Your task to perform on an android device: turn off javascript in the chrome app Image 0: 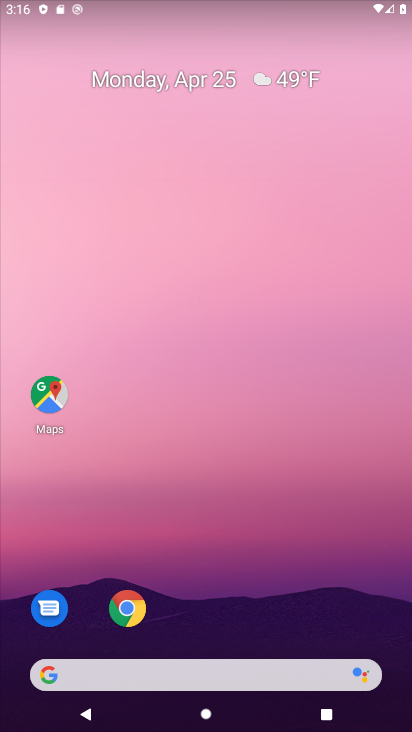
Step 0: click (129, 624)
Your task to perform on an android device: turn off javascript in the chrome app Image 1: 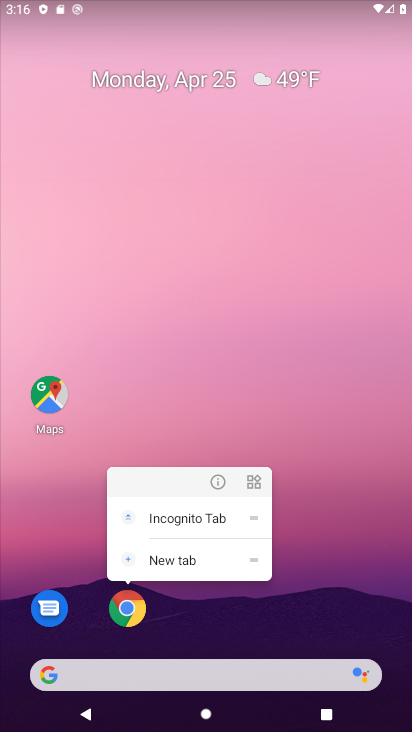
Step 1: click (129, 618)
Your task to perform on an android device: turn off javascript in the chrome app Image 2: 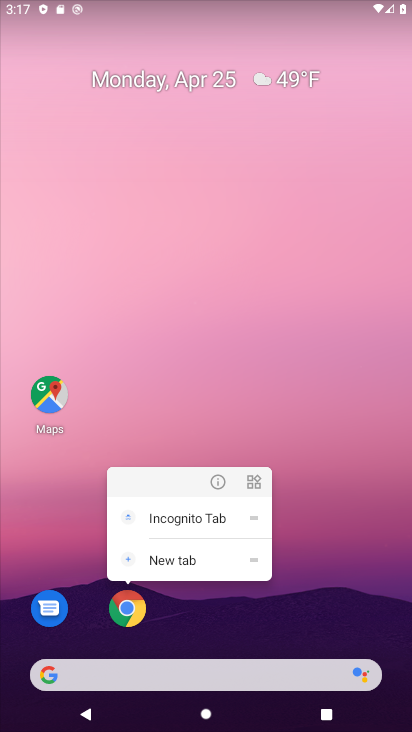
Step 2: click (129, 618)
Your task to perform on an android device: turn off javascript in the chrome app Image 3: 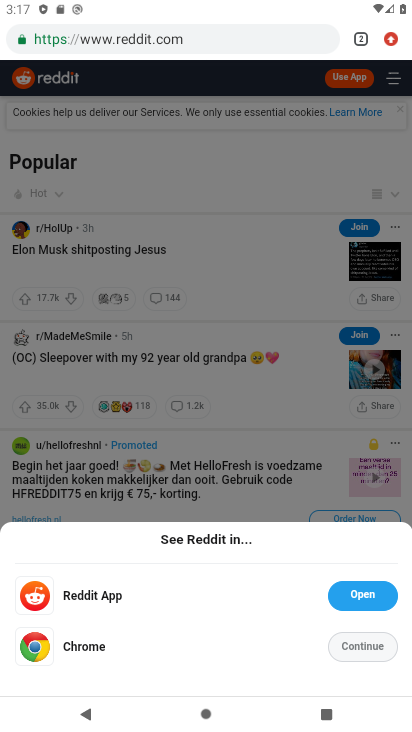
Step 3: drag from (385, 40) to (264, 510)
Your task to perform on an android device: turn off javascript in the chrome app Image 4: 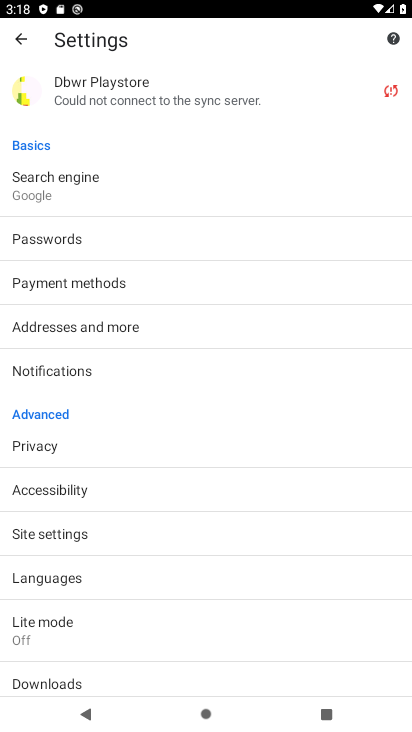
Step 4: click (76, 517)
Your task to perform on an android device: turn off javascript in the chrome app Image 5: 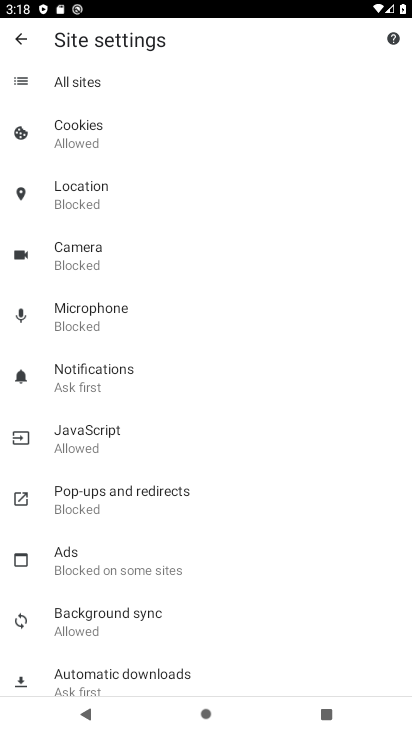
Step 5: click (95, 450)
Your task to perform on an android device: turn off javascript in the chrome app Image 6: 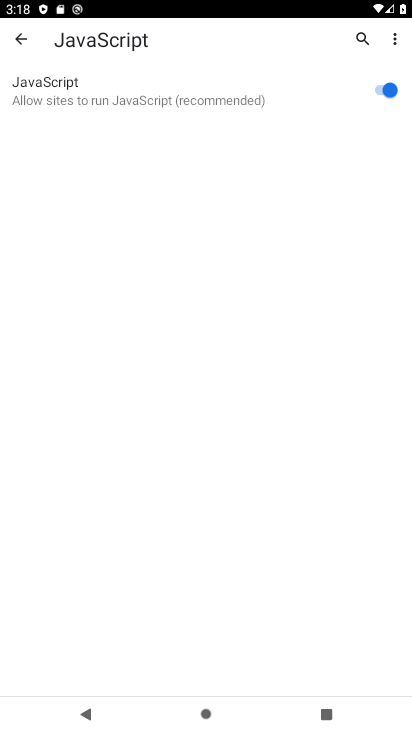
Step 6: click (397, 85)
Your task to perform on an android device: turn off javascript in the chrome app Image 7: 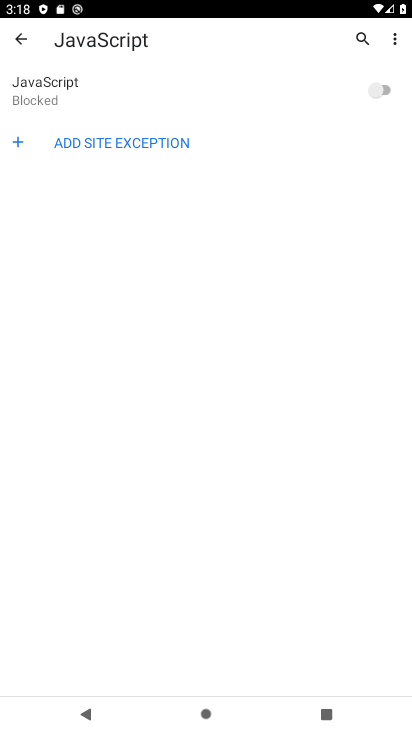
Step 7: task complete